Your task to perform on an android device: Open privacy settings Image 0: 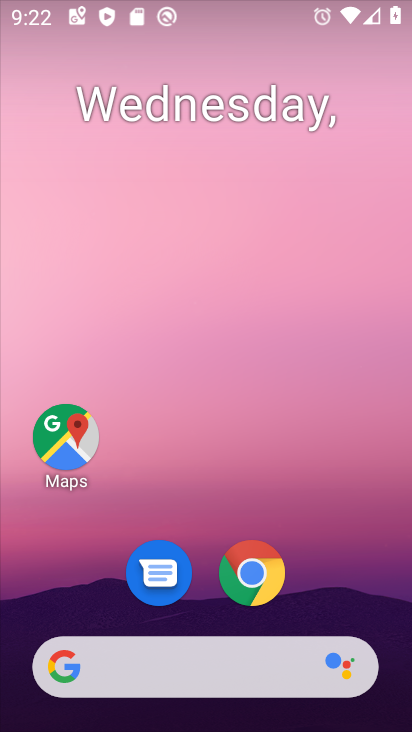
Step 0: drag from (224, 642) to (231, 174)
Your task to perform on an android device: Open privacy settings Image 1: 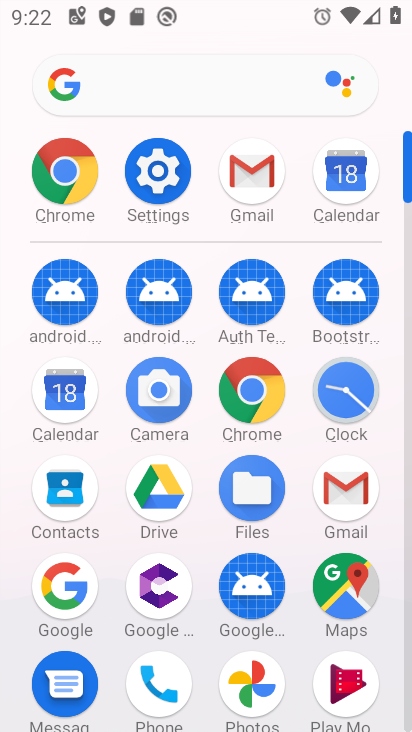
Step 1: click (162, 199)
Your task to perform on an android device: Open privacy settings Image 2: 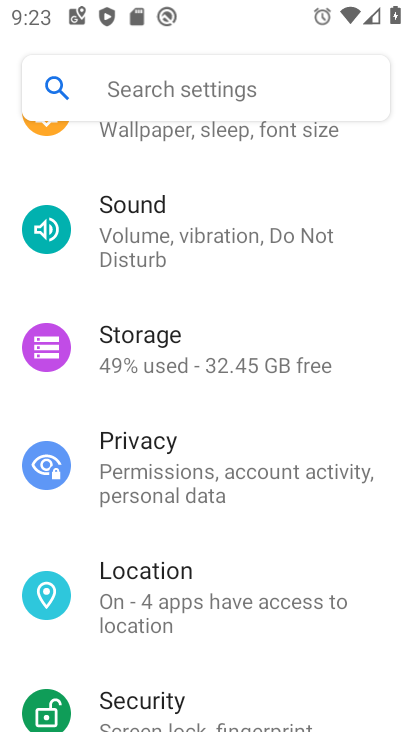
Step 2: click (202, 498)
Your task to perform on an android device: Open privacy settings Image 3: 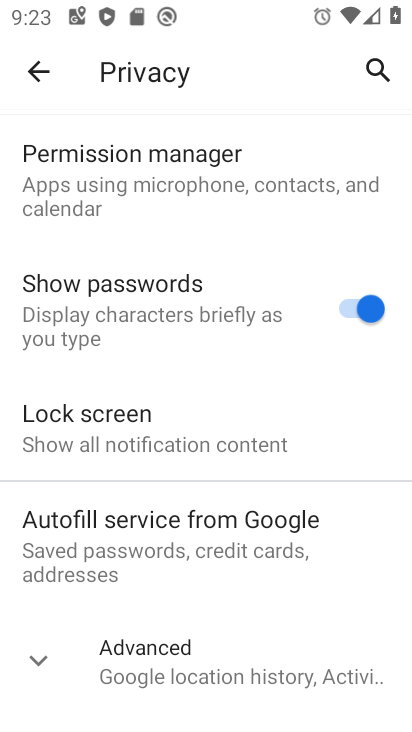
Step 3: task complete